Your task to perform on an android device: Open accessibility settings Image 0: 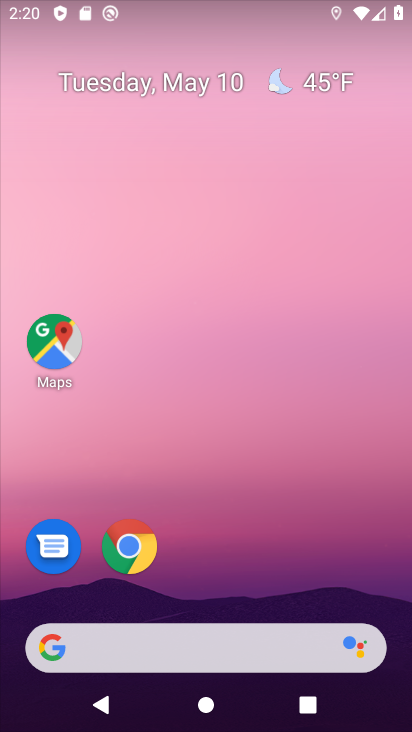
Step 0: drag from (218, 565) to (232, 22)
Your task to perform on an android device: Open accessibility settings Image 1: 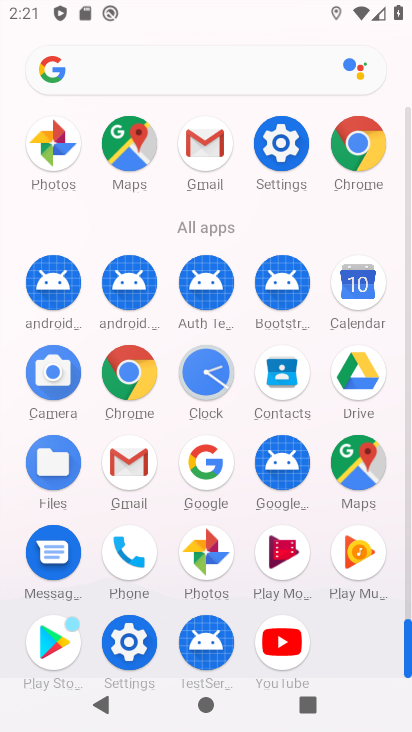
Step 1: drag from (0, 551) to (9, 290)
Your task to perform on an android device: Open accessibility settings Image 2: 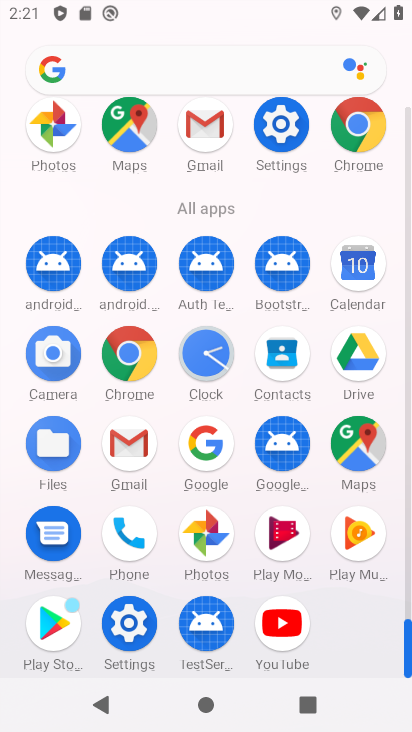
Step 2: click (126, 619)
Your task to perform on an android device: Open accessibility settings Image 3: 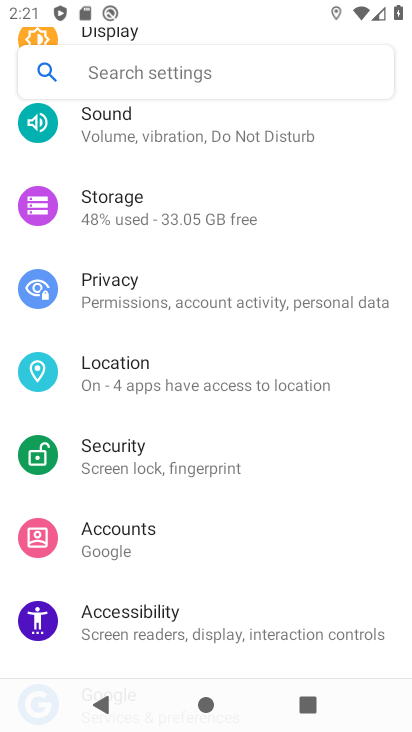
Step 3: drag from (231, 541) to (235, 106)
Your task to perform on an android device: Open accessibility settings Image 4: 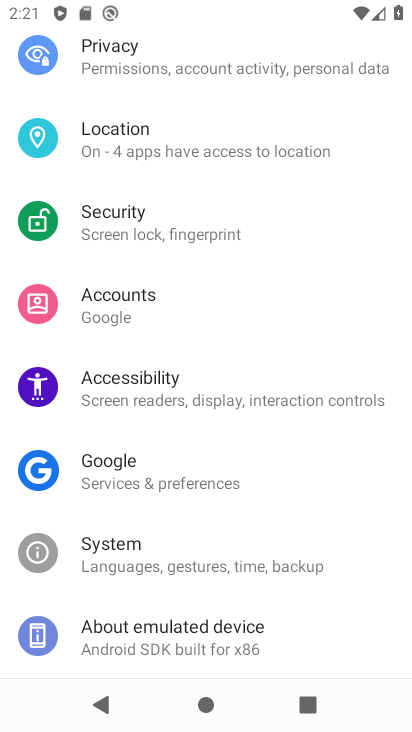
Step 4: drag from (237, 586) to (242, 187)
Your task to perform on an android device: Open accessibility settings Image 5: 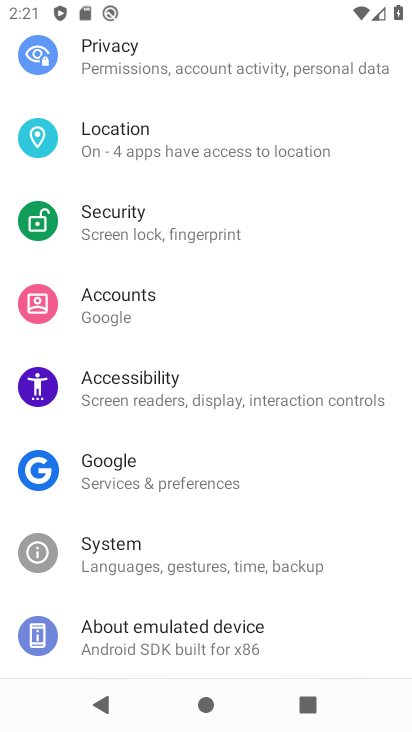
Step 5: click (166, 377)
Your task to perform on an android device: Open accessibility settings Image 6: 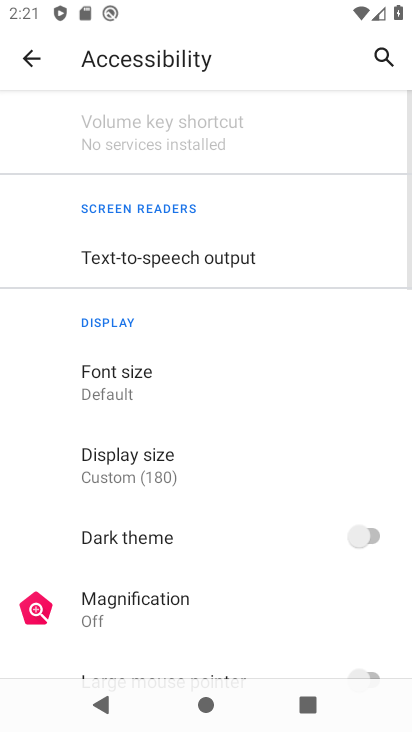
Step 6: task complete